Your task to perform on an android device: check storage Image 0: 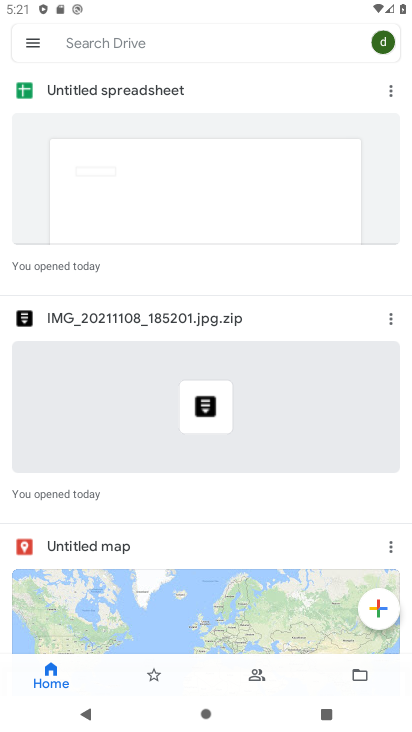
Step 0: press home button
Your task to perform on an android device: check storage Image 1: 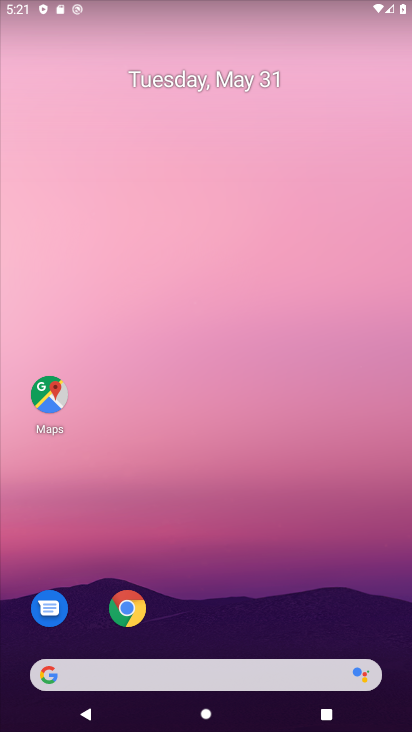
Step 1: drag from (243, 659) to (216, 4)
Your task to perform on an android device: check storage Image 2: 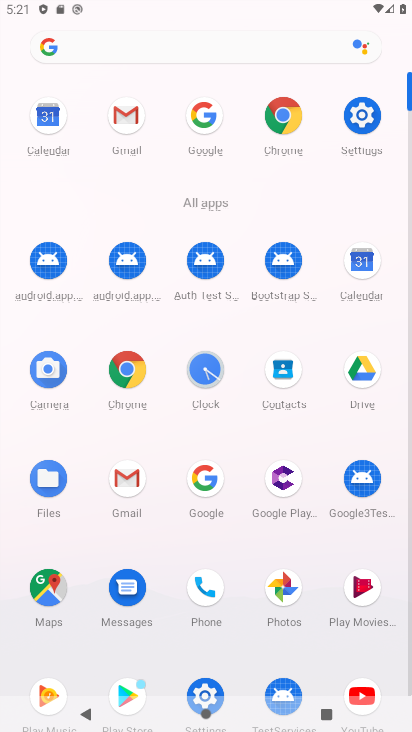
Step 2: click (363, 110)
Your task to perform on an android device: check storage Image 3: 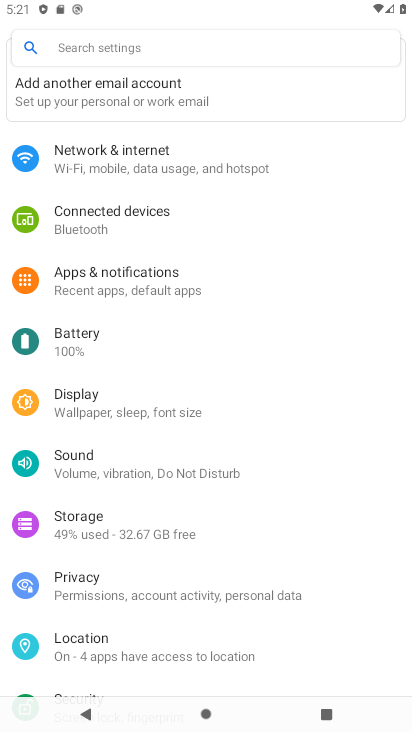
Step 3: click (112, 522)
Your task to perform on an android device: check storage Image 4: 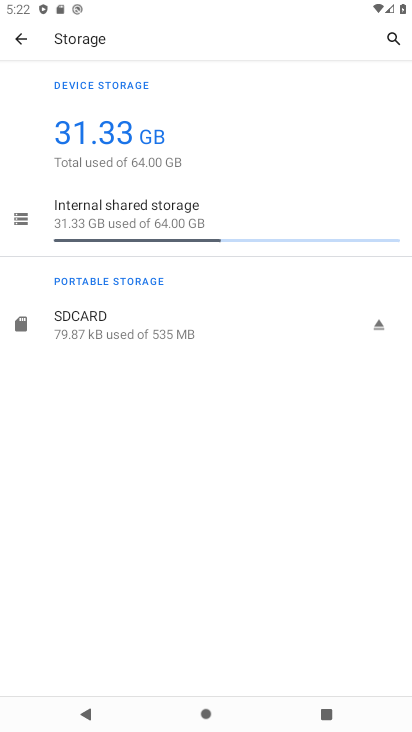
Step 4: task complete